Your task to perform on an android device: Search for Mexican restaurants on Maps Image 0: 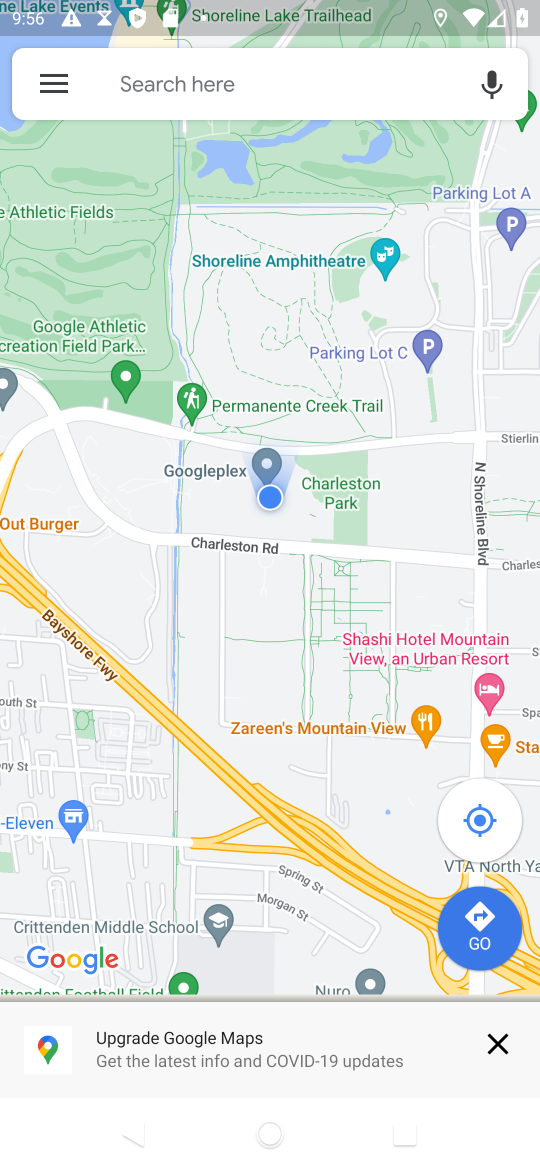
Step 0: press home button
Your task to perform on an android device: Search for Mexican restaurants on Maps Image 1: 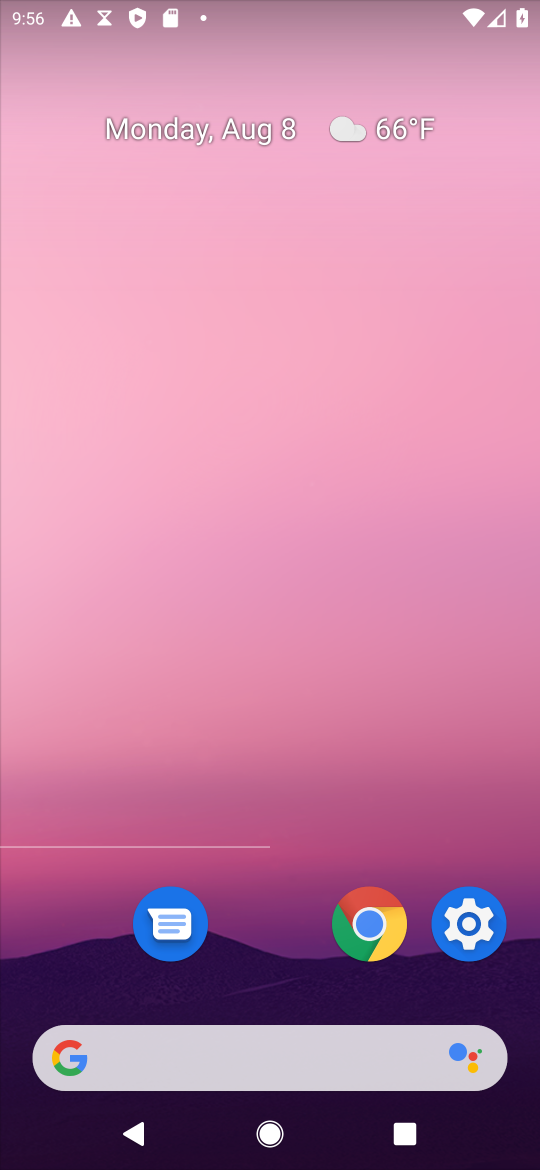
Step 1: drag from (258, 955) to (282, 165)
Your task to perform on an android device: Search for Mexican restaurants on Maps Image 2: 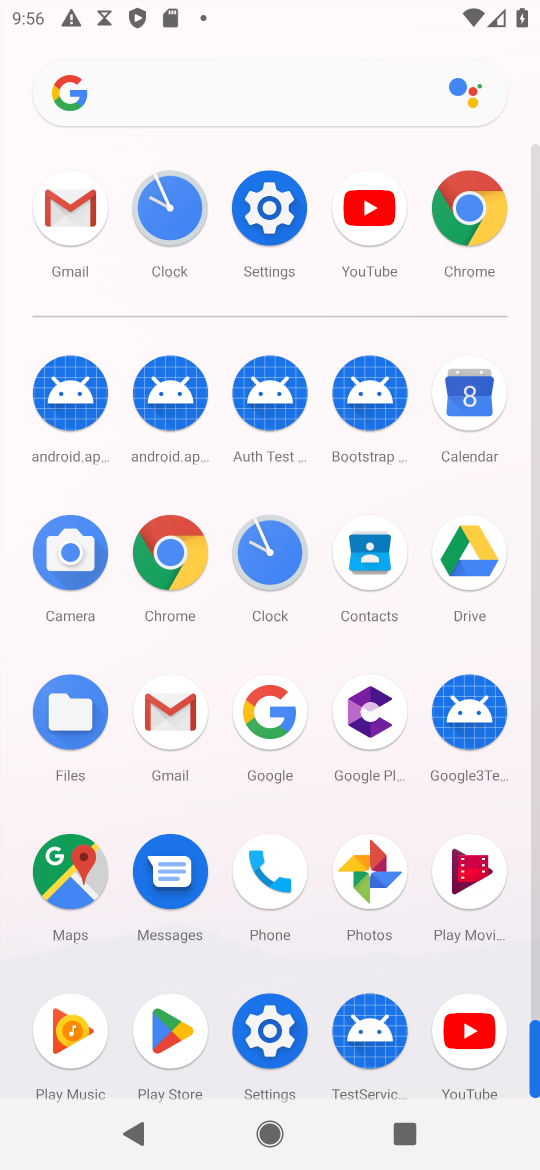
Step 2: click (68, 866)
Your task to perform on an android device: Search for Mexican restaurants on Maps Image 3: 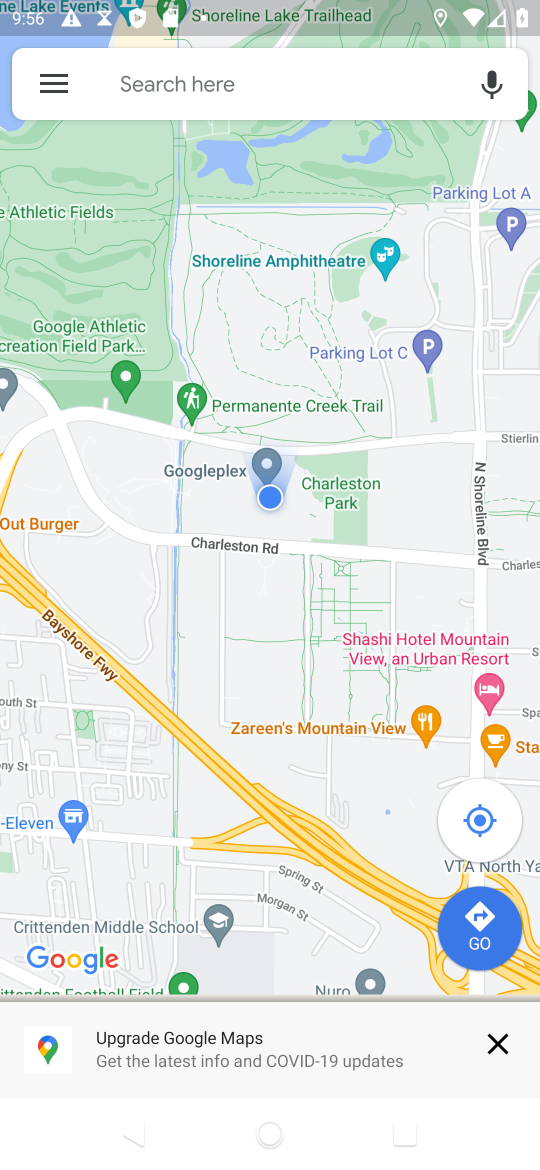
Step 3: click (275, 53)
Your task to perform on an android device: Search for Mexican restaurants on Maps Image 4: 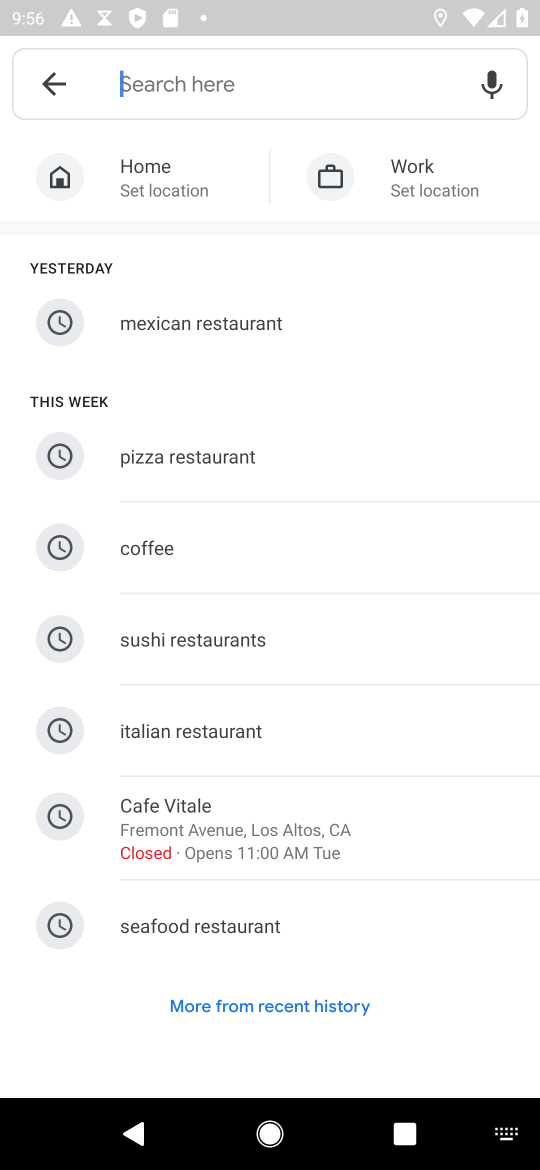
Step 4: type " Mexican restaurants"
Your task to perform on an android device: Search for Mexican restaurants on Maps Image 5: 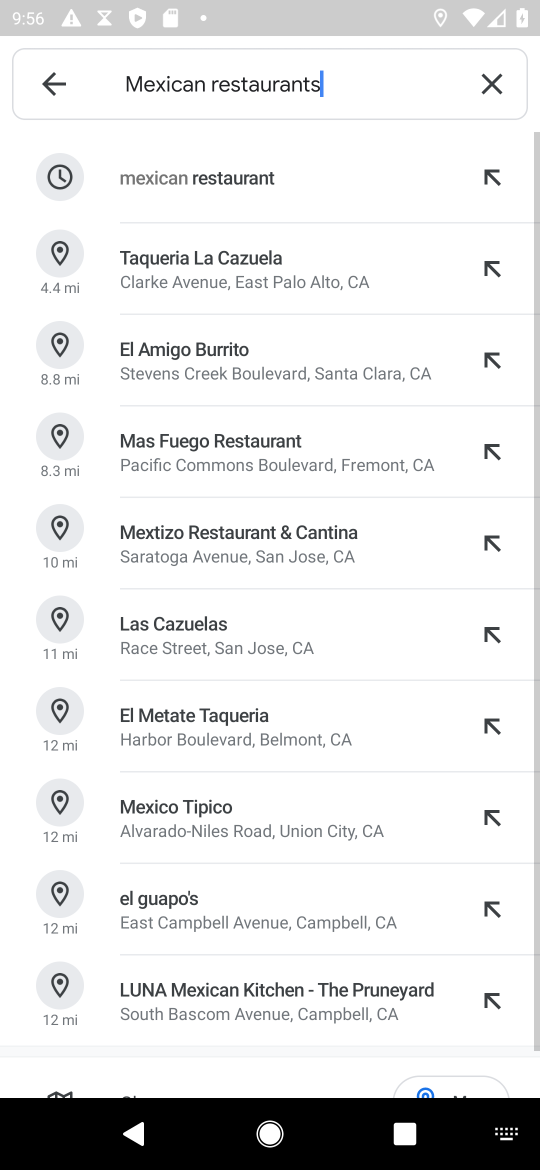
Step 5: click (167, 183)
Your task to perform on an android device: Search for Mexican restaurants on Maps Image 6: 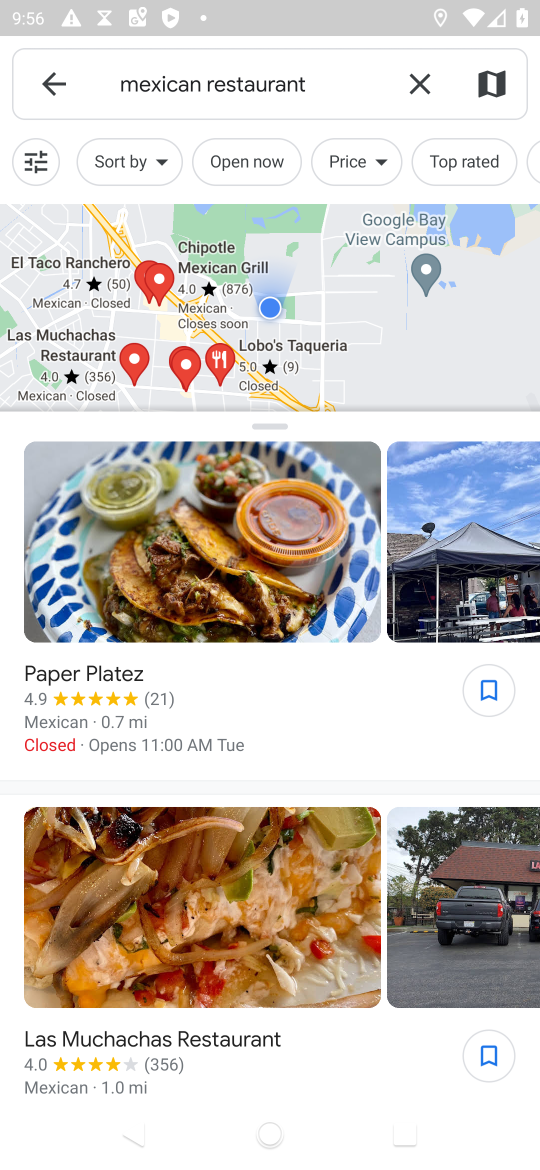
Step 6: task complete